Your task to perform on an android device: toggle priority inbox in the gmail app Image 0: 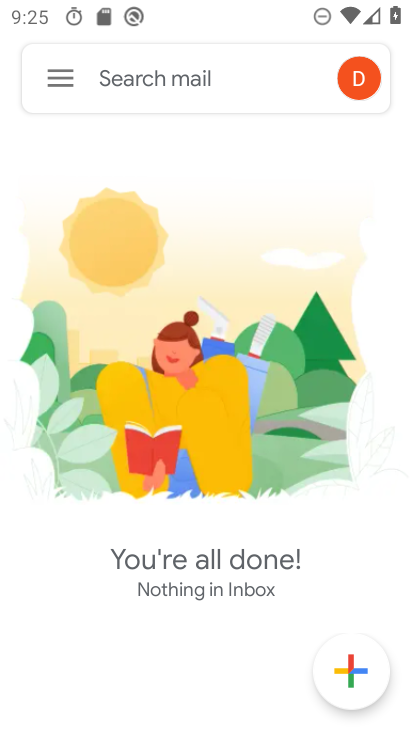
Step 0: click (46, 67)
Your task to perform on an android device: toggle priority inbox in the gmail app Image 1: 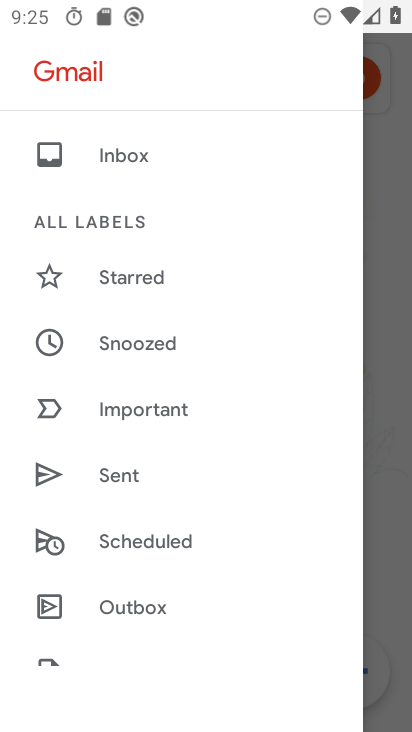
Step 1: drag from (247, 604) to (270, 275)
Your task to perform on an android device: toggle priority inbox in the gmail app Image 2: 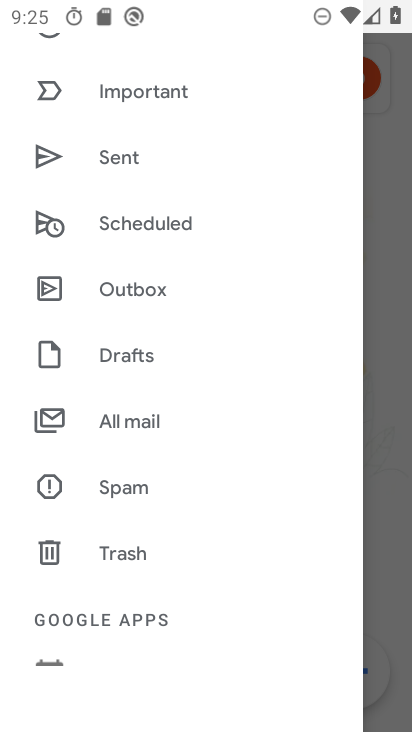
Step 2: drag from (226, 582) to (232, 292)
Your task to perform on an android device: toggle priority inbox in the gmail app Image 3: 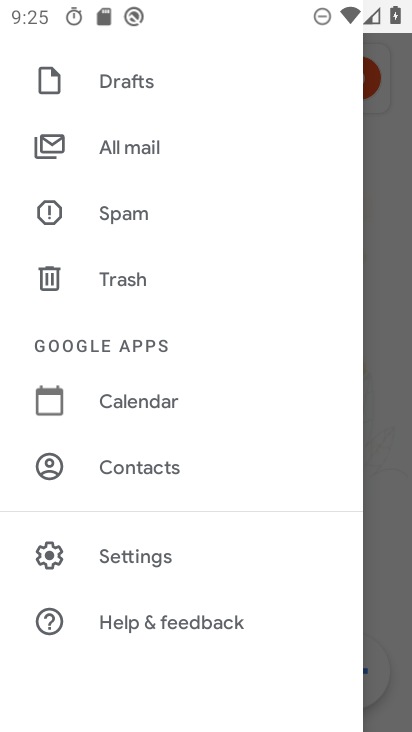
Step 3: click (122, 550)
Your task to perform on an android device: toggle priority inbox in the gmail app Image 4: 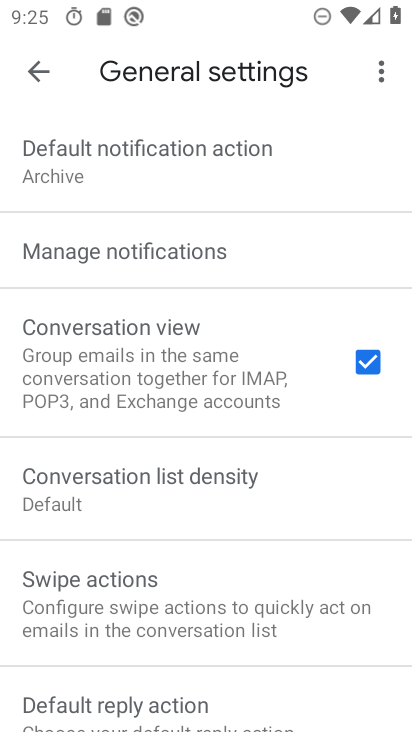
Step 4: drag from (210, 620) to (201, 299)
Your task to perform on an android device: toggle priority inbox in the gmail app Image 5: 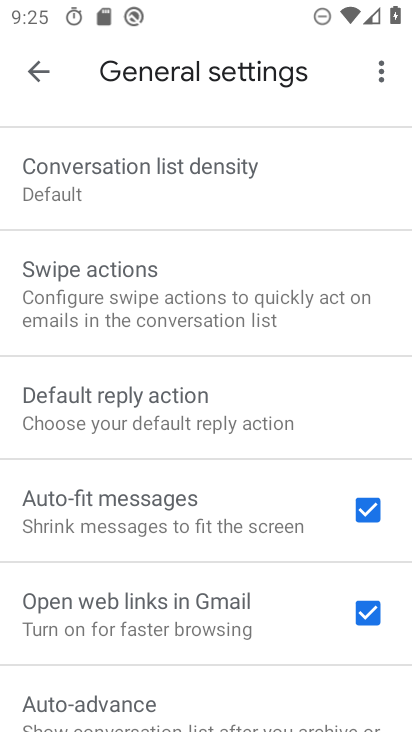
Step 5: drag from (176, 680) to (169, 381)
Your task to perform on an android device: toggle priority inbox in the gmail app Image 6: 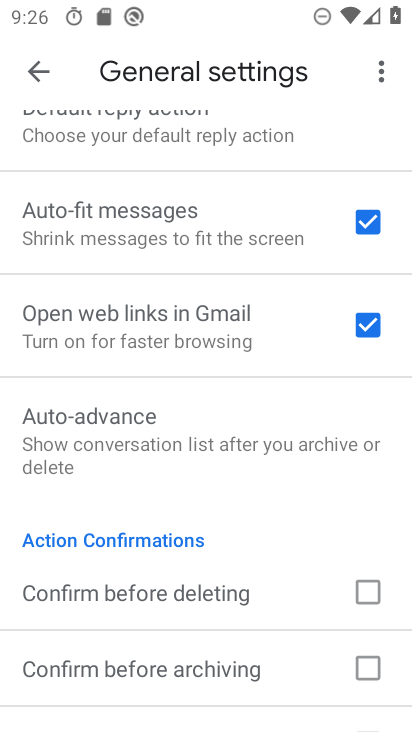
Step 6: drag from (173, 676) to (160, 431)
Your task to perform on an android device: toggle priority inbox in the gmail app Image 7: 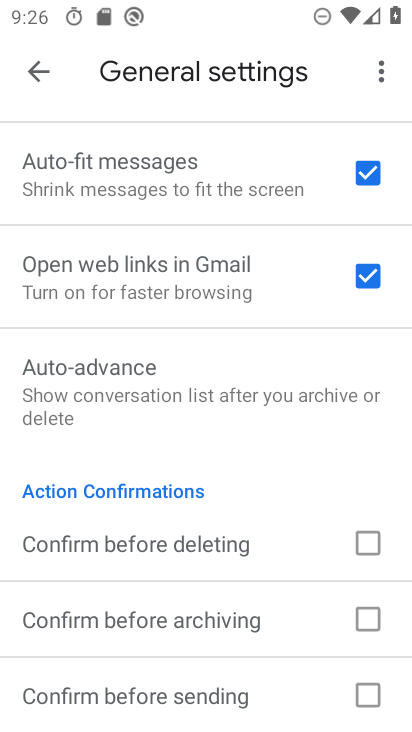
Step 7: click (28, 65)
Your task to perform on an android device: toggle priority inbox in the gmail app Image 8: 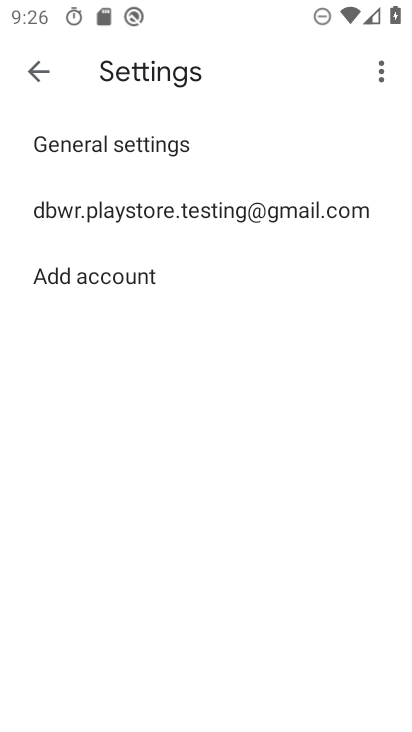
Step 8: click (76, 197)
Your task to perform on an android device: toggle priority inbox in the gmail app Image 9: 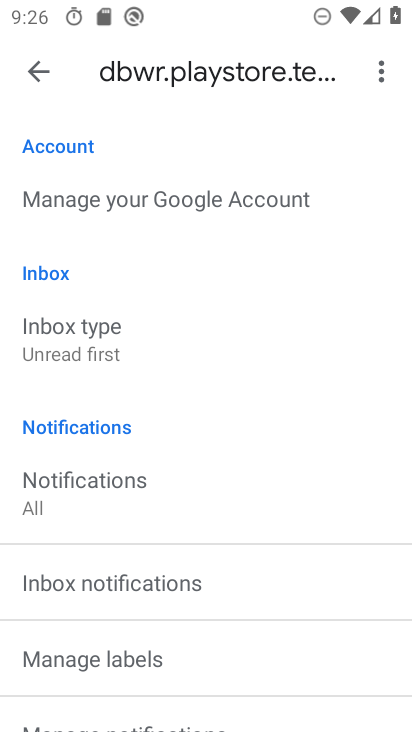
Step 9: click (43, 336)
Your task to perform on an android device: toggle priority inbox in the gmail app Image 10: 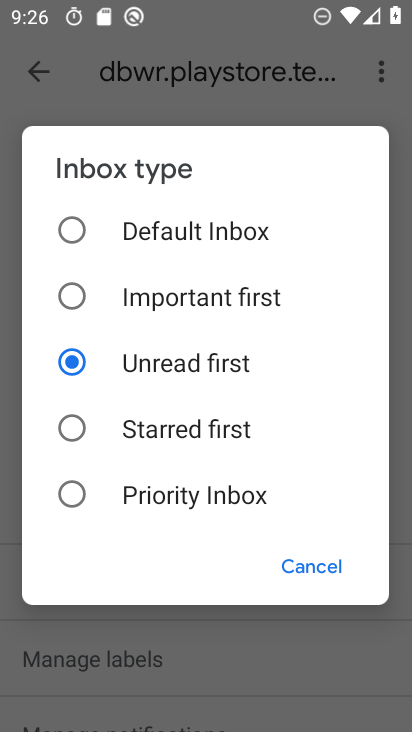
Step 10: click (75, 489)
Your task to perform on an android device: toggle priority inbox in the gmail app Image 11: 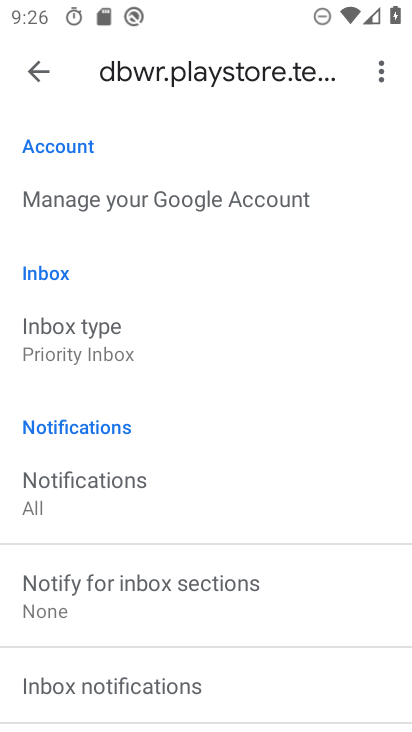
Step 11: task complete